Your task to perform on an android device: Is it going to rain tomorrow? Image 0: 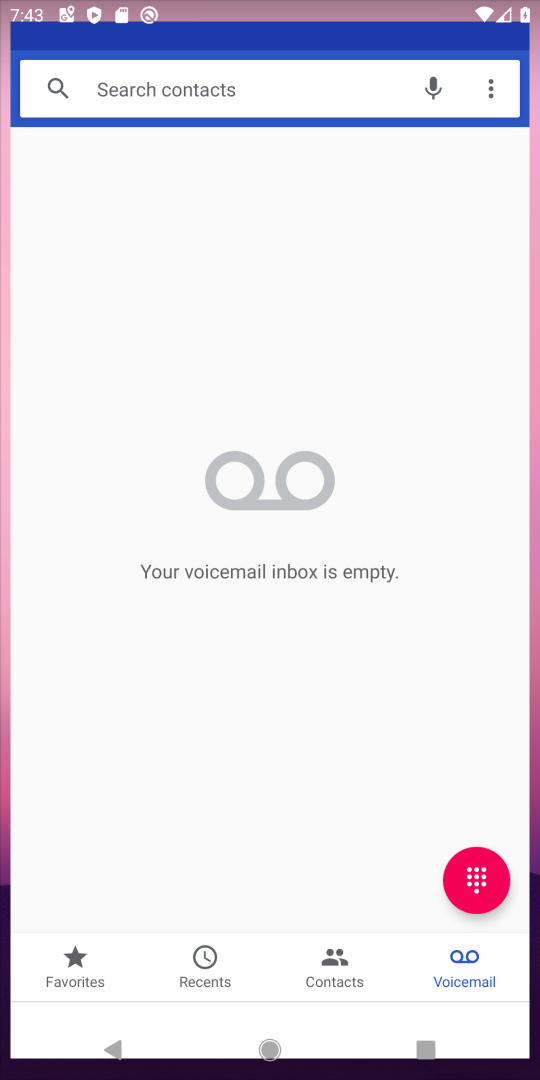
Step 0: press home button
Your task to perform on an android device: Is it going to rain tomorrow? Image 1: 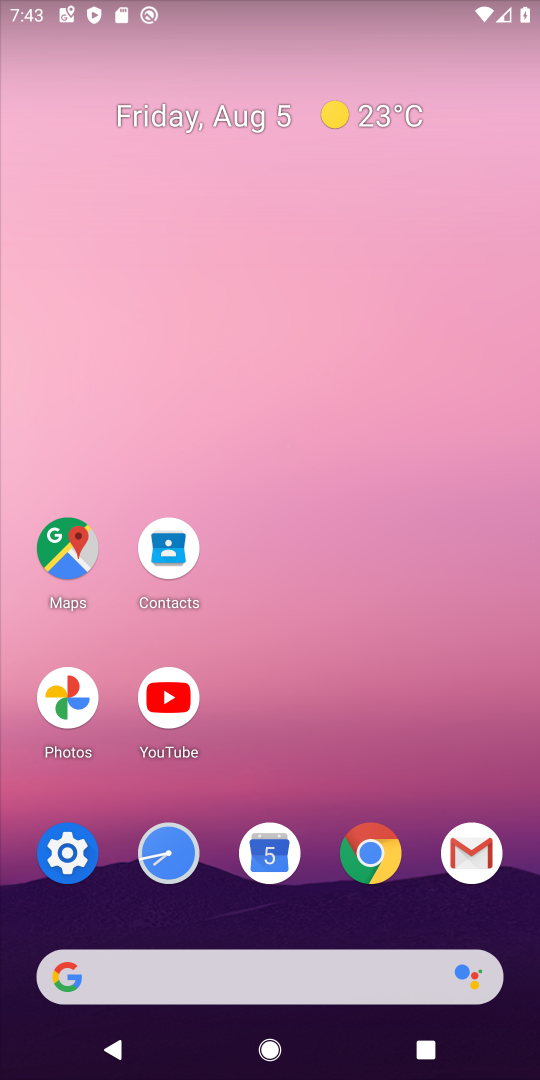
Step 1: click (244, 981)
Your task to perform on an android device: Is it going to rain tomorrow? Image 2: 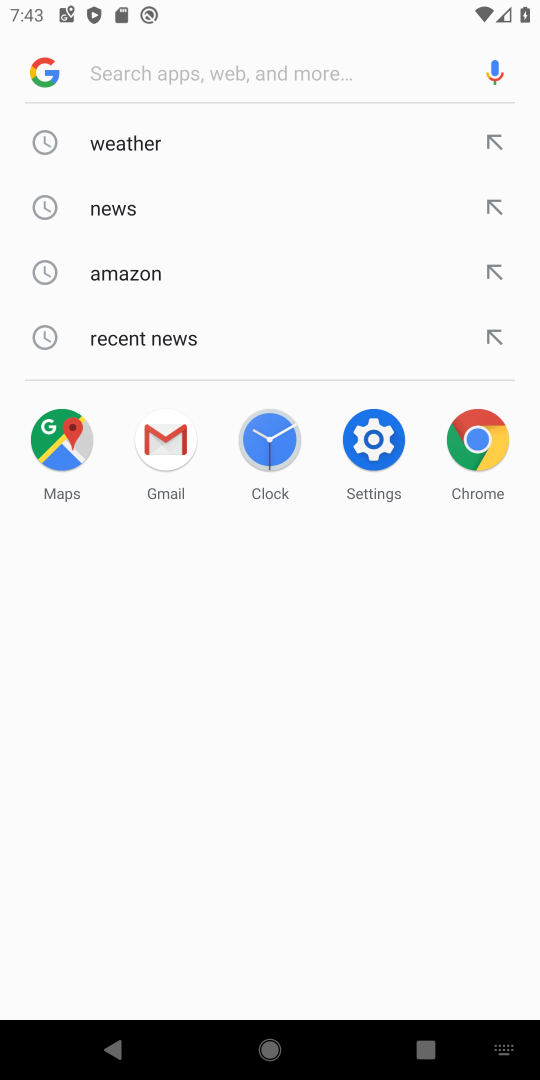
Step 2: click (128, 137)
Your task to perform on an android device: Is it going to rain tomorrow? Image 3: 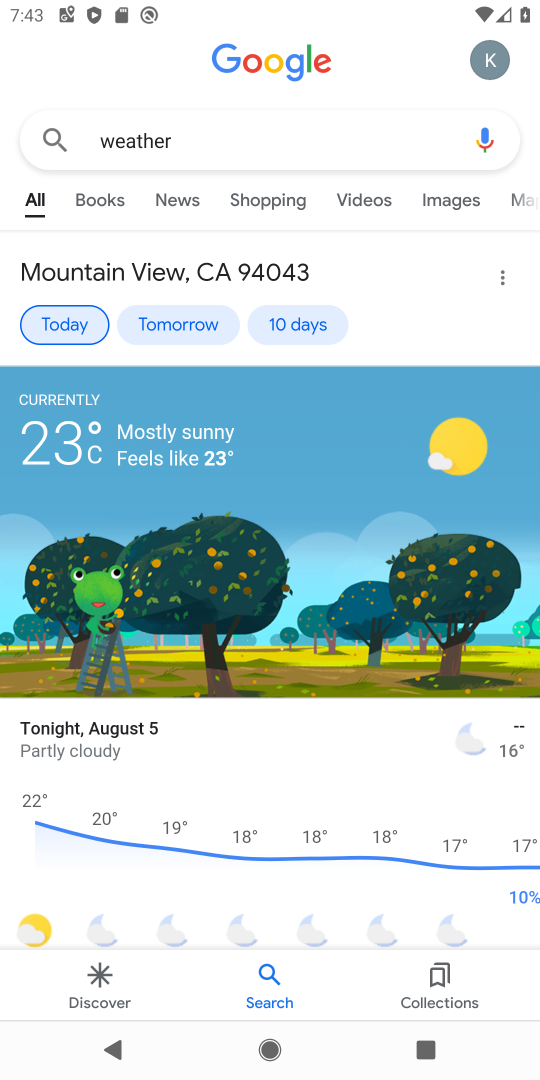
Step 3: click (186, 316)
Your task to perform on an android device: Is it going to rain tomorrow? Image 4: 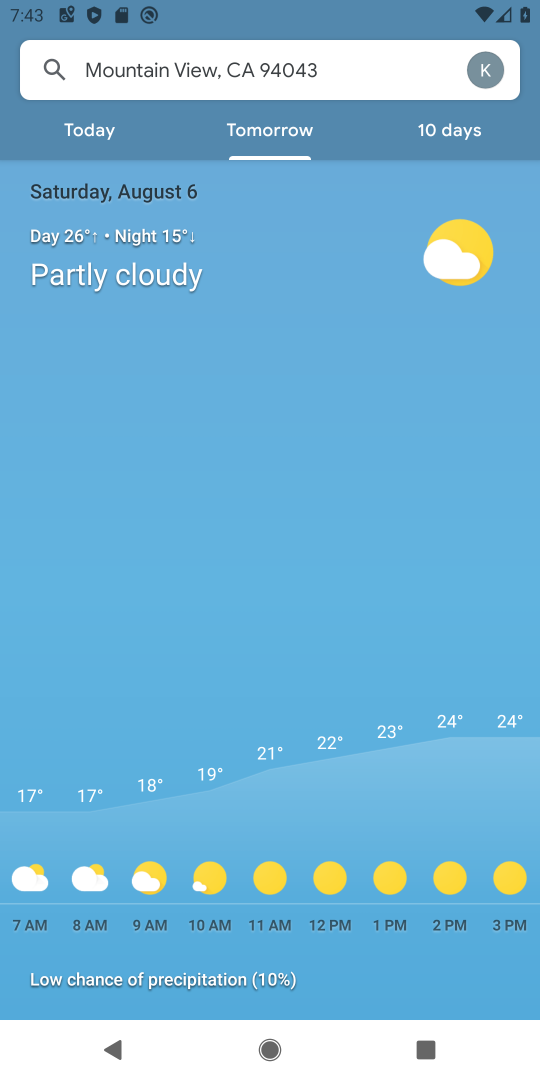
Step 4: task complete